Your task to perform on an android device: Search for Mexican restaurants on Maps Image 0: 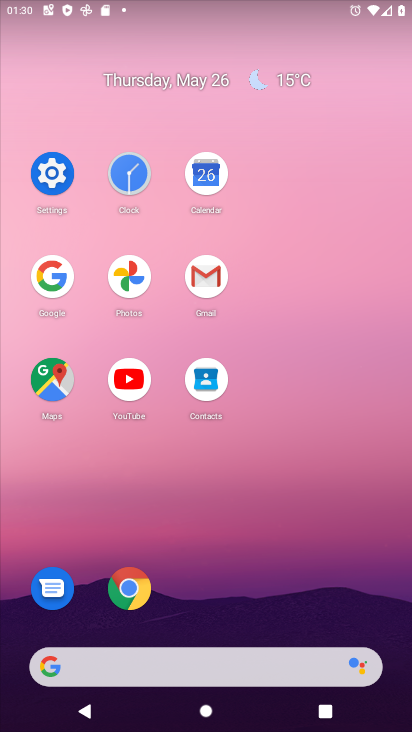
Step 0: click (60, 372)
Your task to perform on an android device: Search for Mexican restaurants on Maps Image 1: 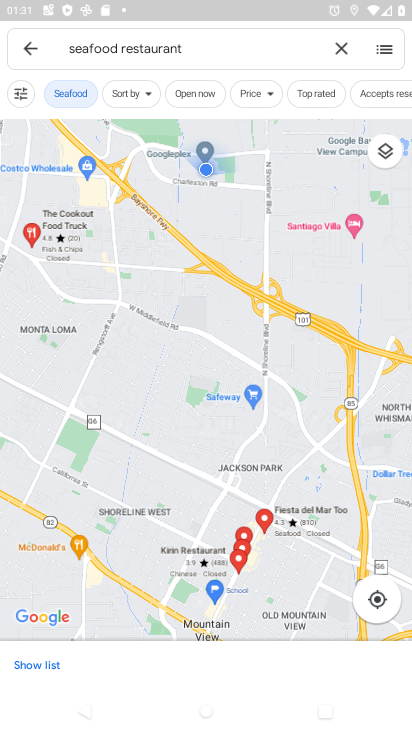
Step 1: click (340, 43)
Your task to perform on an android device: Search for Mexican restaurants on Maps Image 2: 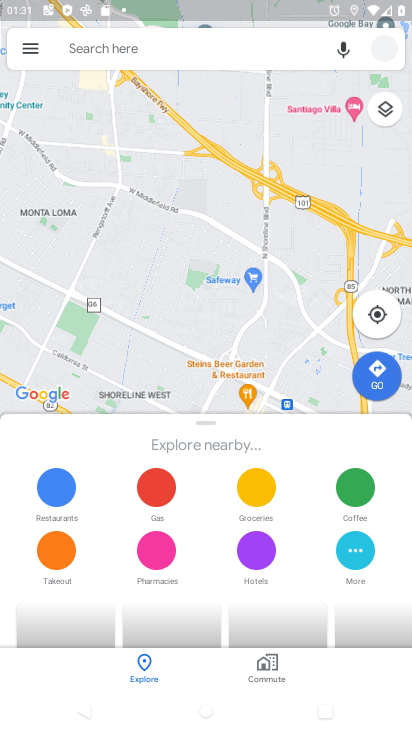
Step 2: click (251, 46)
Your task to perform on an android device: Search for Mexican restaurants on Maps Image 3: 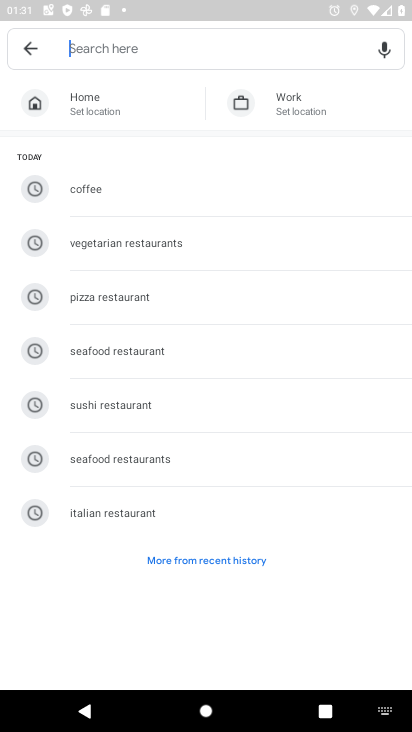
Step 3: click (201, 47)
Your task to perform on an android device: Search for Mexican restaurants on Maps Image 4: 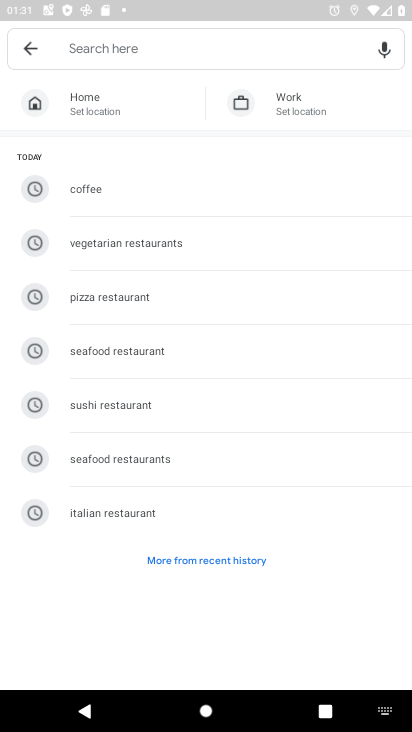
Step 4: type "mexican restaurants"
Your task to perform on an android device: Search for Mexican restaurants on Maps Image 5: 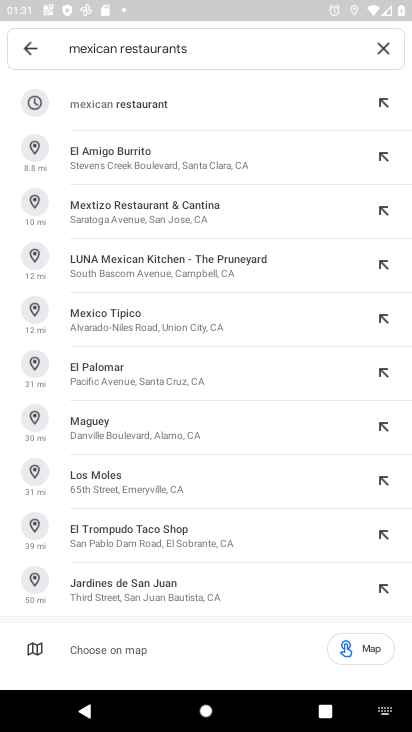
Step 5: task complete